Your task to perform on an android device: Go to Google maps Image 0: 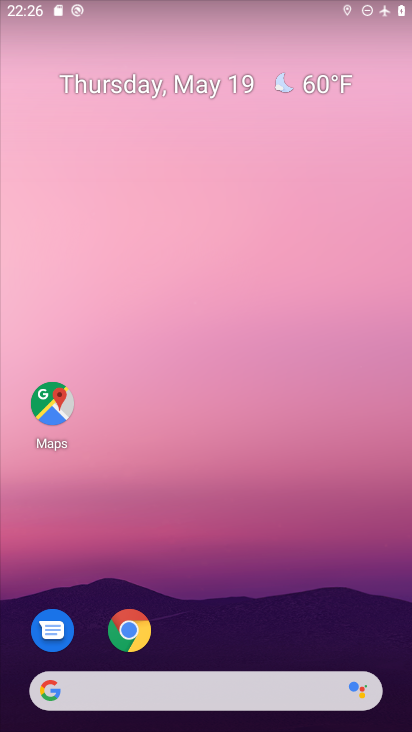
Step 0: click (395, 468)
Your task to perform on an android device: Go to Google maps Image 1: 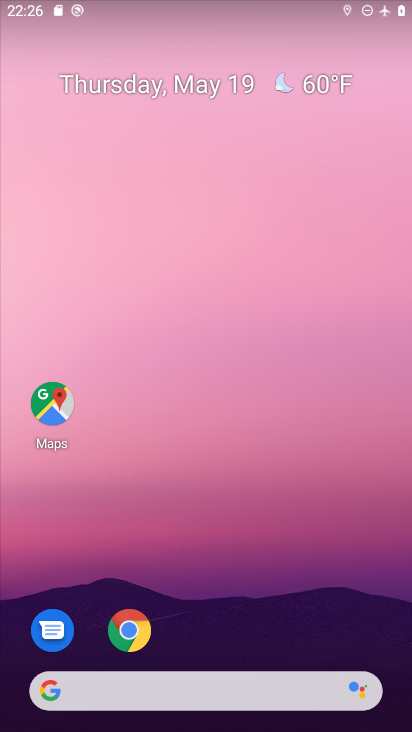
Step 1: click (50, 402)
Your task to perform on an android device: Go to Google maps Image 2: 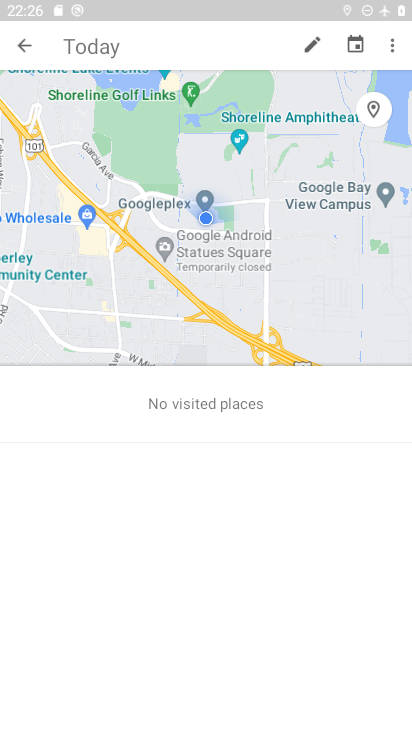
Step 2: click (32, 40)
Your task to perform on an android device: Go to Google maps Image 3: 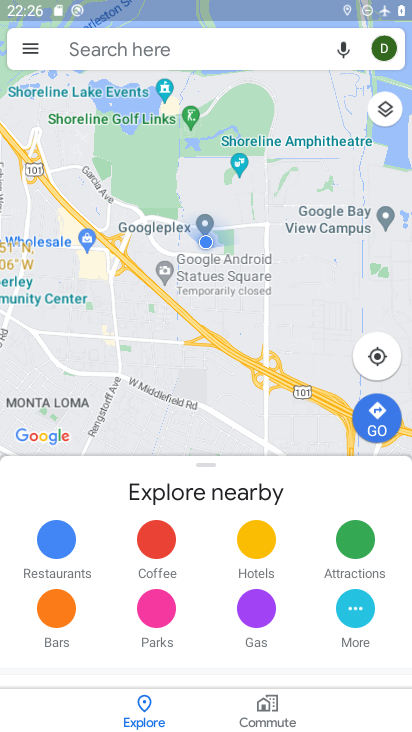
Step 3: click (149, 42)
Your task to perform on an android device: Go to Google maps Image 4: 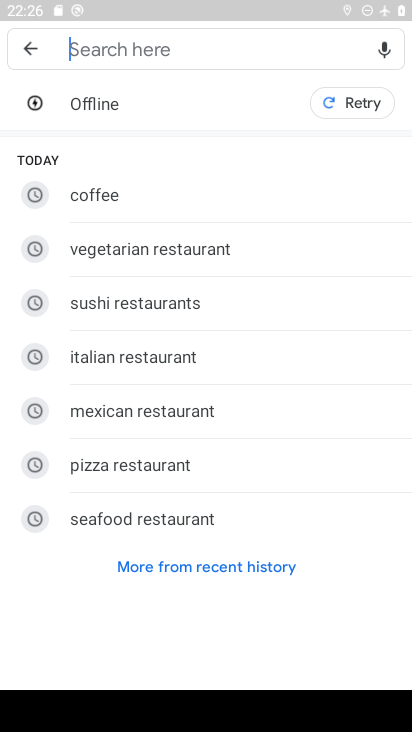
Step 4: task complete